Your task to perform on an android device: toggle data saver in the chrome app Image 0: 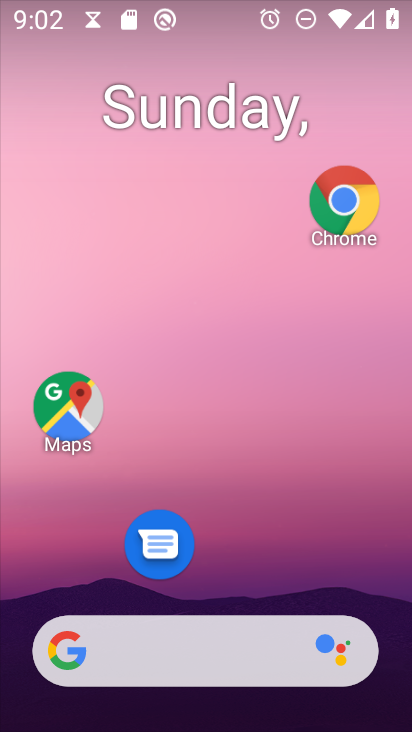
Step 0: click (334, 205)
Your task to perform on an android device: toggle data saver in the chrome app Image 1: 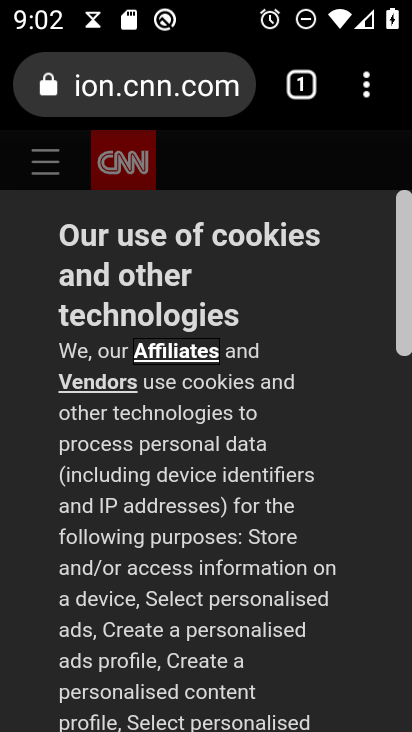
Step 1: click (361, 96)
Your task to perform on an android device: toggle data saver in the chrome app Image 2: 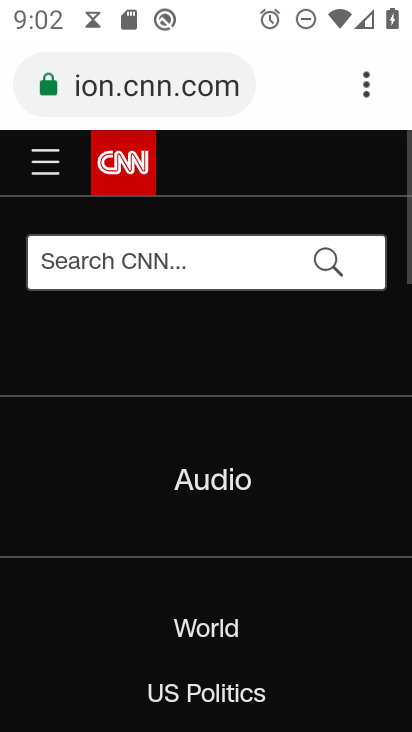
Step 2: click (361, 98)
Your task to perform on an android device: toggle data saver in the chrome app Image 3: 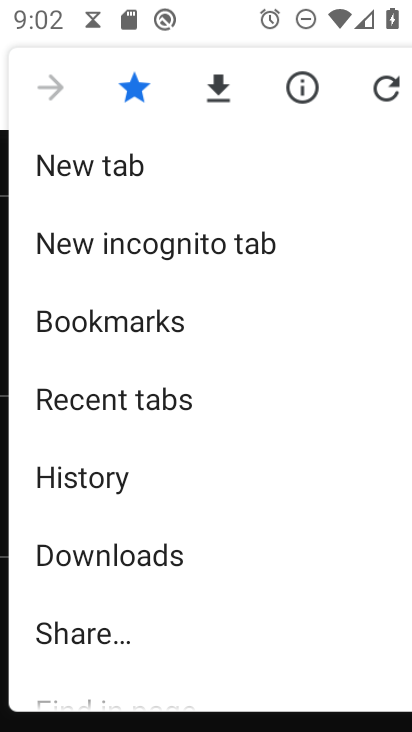
Step 3: drag from (207, 646) to (216, 442)
Your task to perform on an android device: toggle data saver in the chrome app Image 4: 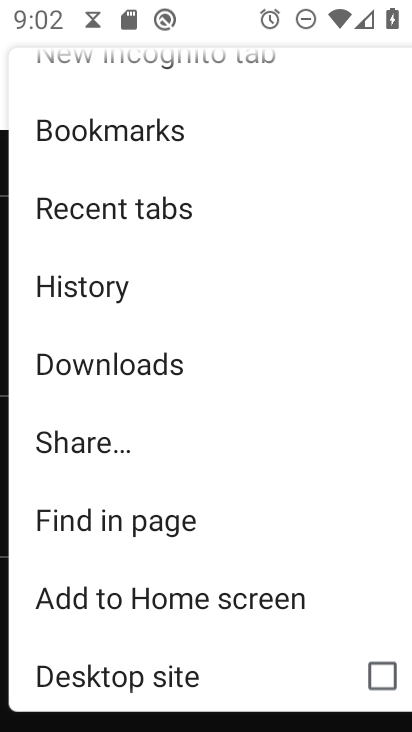
Step 4: drag from (162, 610) to (166, 398)
Your task to perform on an android device: toggle data saver in the chrome app Image 5: 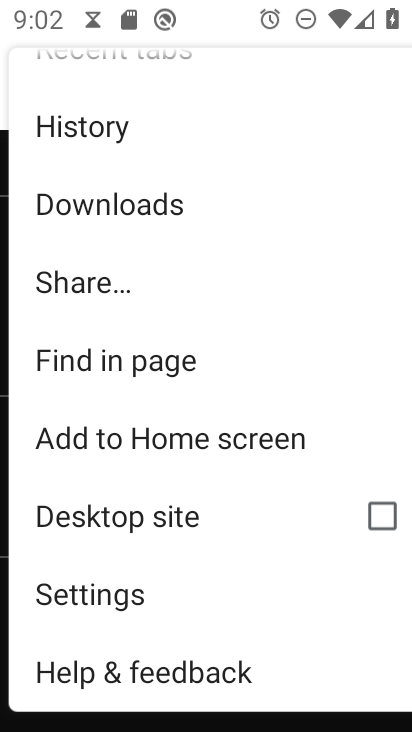
Step 5: click (99, 589)
Your task to perform on an android device: toggle data saver in the chrome app Image 6: 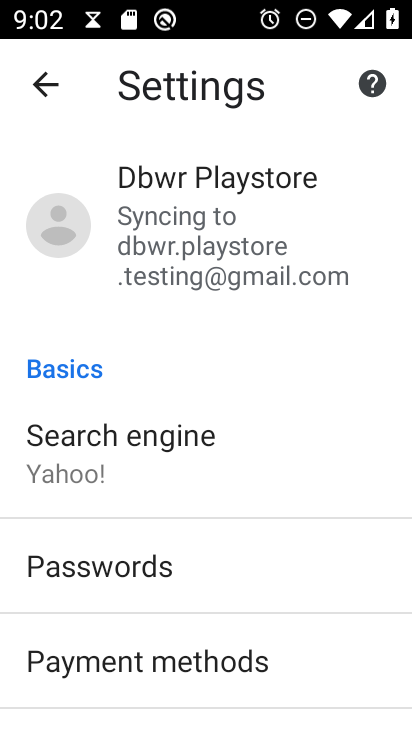
Step 6: drag from (112, 607) to (171, 395)
Your task to perform on an android device: toggle data saver in the chrome app Image 7: 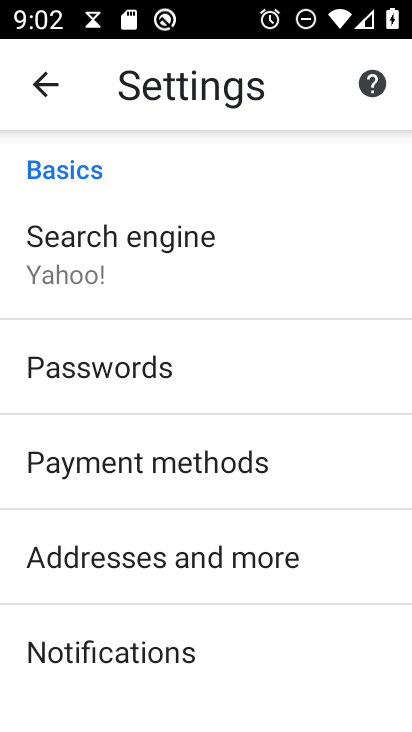
Step 7: drag from (173, 642) to (191, 487)
Your task to perform on an android device: toggle data saver in the chrome app Image 8: 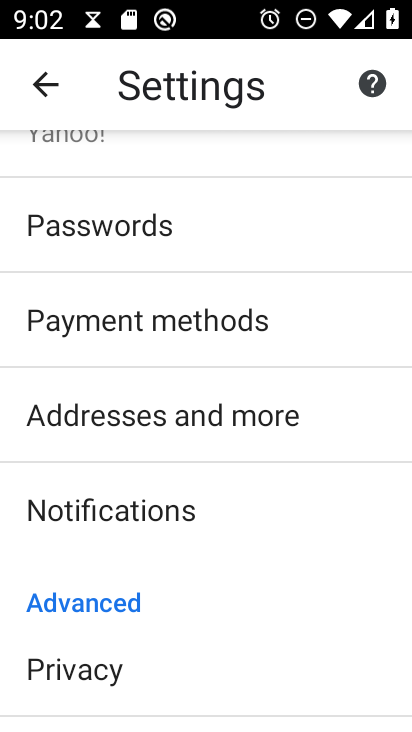
Step 8: drag from (148, 650) to (182, 522)
Your task to perform on an android device: toggle data saver in the chrome app Image 9: 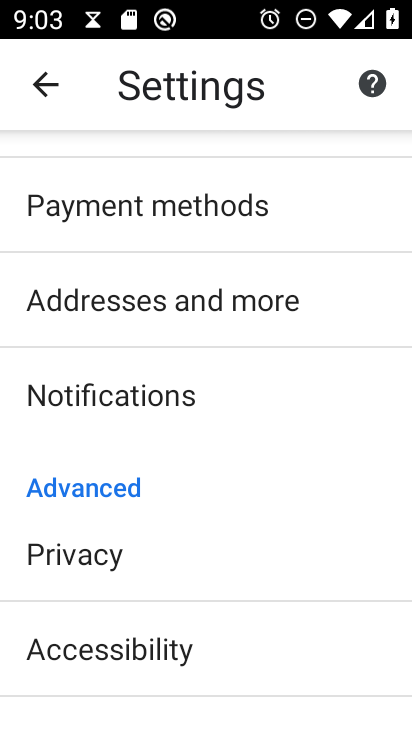
Step 9: drag from (182, 652) to (203, 478)
Your task to perform on an android device: toggle data saver in the chrome app Image 10: 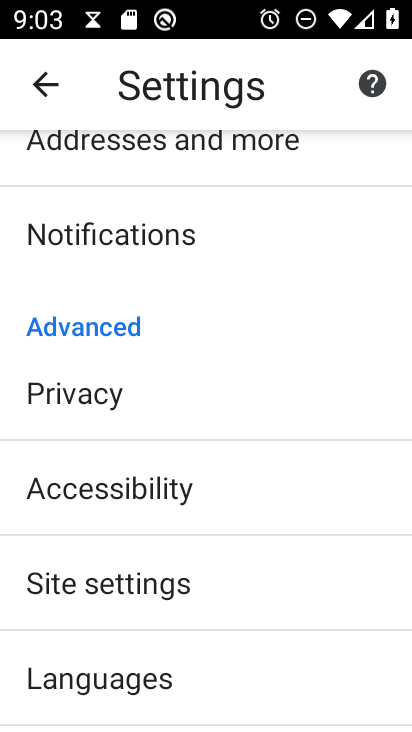
Step 10: drag from (180, 603) to (252, 414)
Your task to perform on an android device: toggle data saver in the chrome app Image 11: 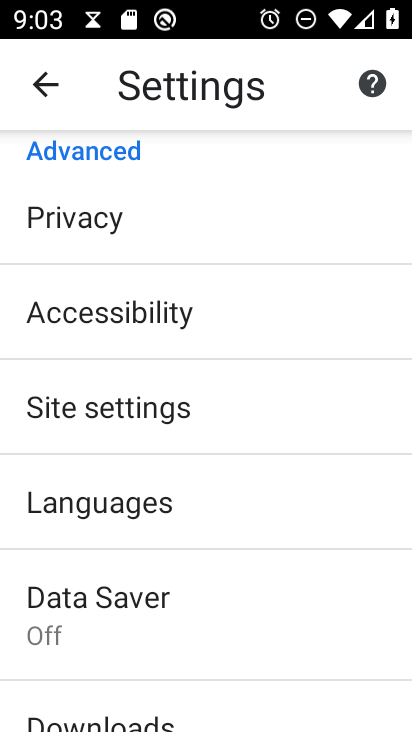
Step 11: click (195, 611)
Your task to perform on an android device: toggle data saver in the chrome app Image 12: 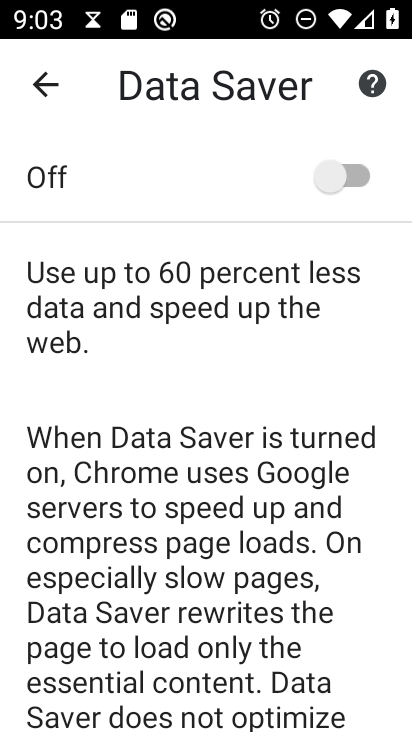
Step 12: click (330, 186)
Your task to perform on an android device: toggle data saver in the chrome app Image 13: 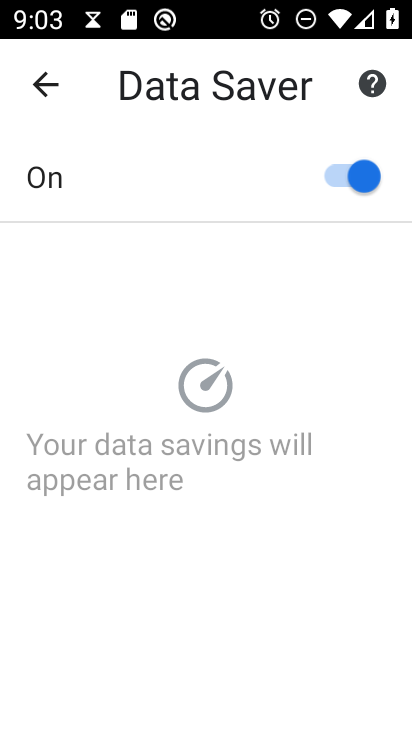
Step 13: task complete